Your task to perform on an android device: toggle data saver in the chrome app Image 0: 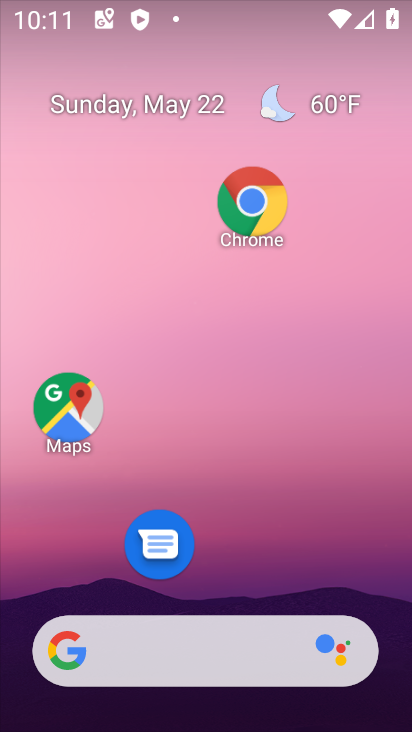
Step 0: click (247, 194)
Your task to perform on an android device: toggle data saver in the chrome app Image 1: 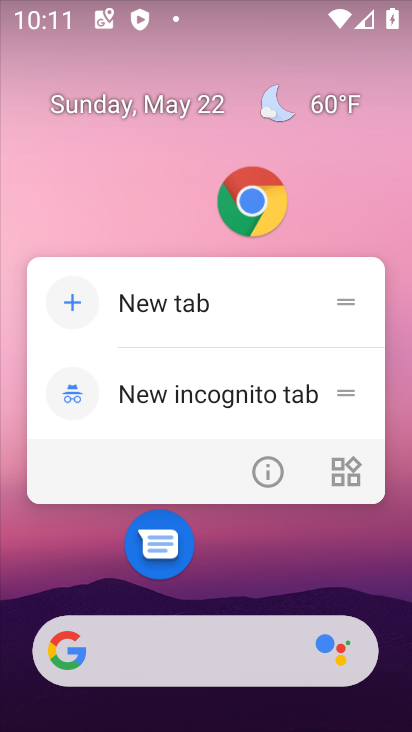
Step 1: click (248, 199)
Your task to perform on an android device: toggle data saver in the chrome app Image 2: 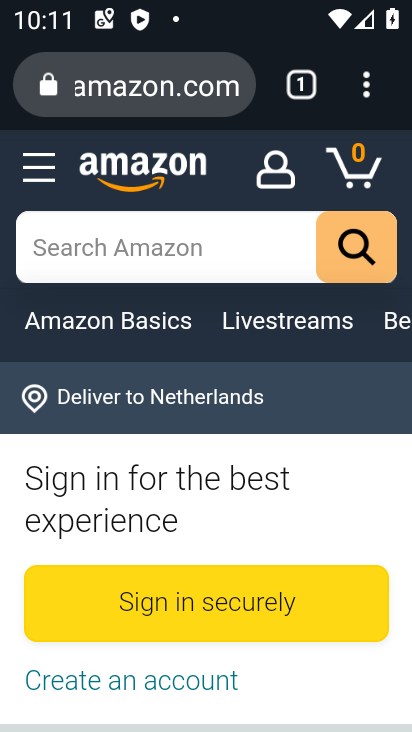
Step 2: click (360, 82)
Your task to perform on an android device: toggle data saver in the chrome app Image 3: 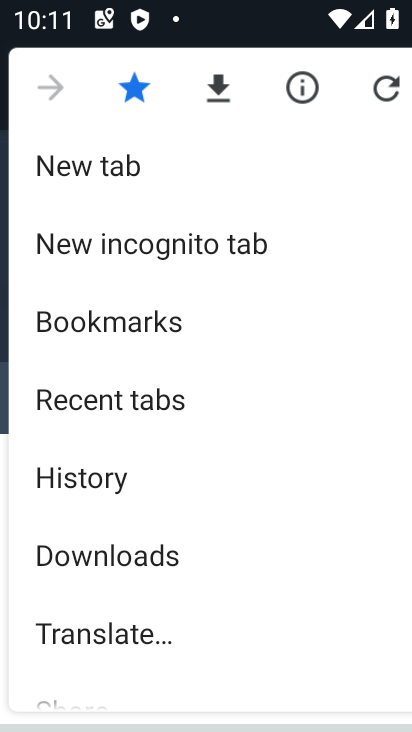
Step 3: drag from (226, 527) to (233, 88)
Your task to perform on an android device: toggle data saver in the chrome app Image 4: 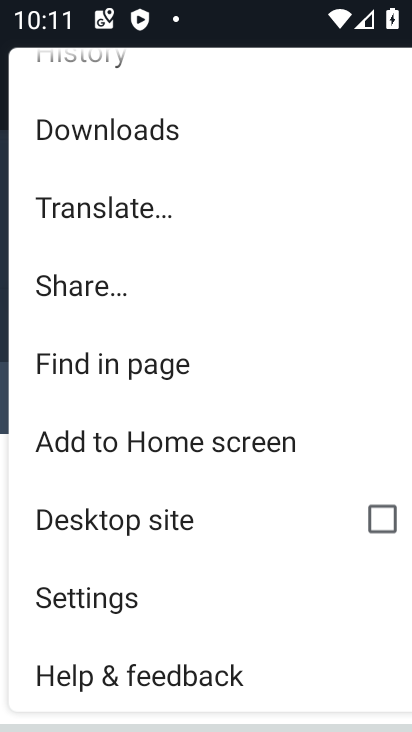
Step 4: click (87, 594)
Your task to perform on an android device: toggle data saver in the chrome app Image 5: 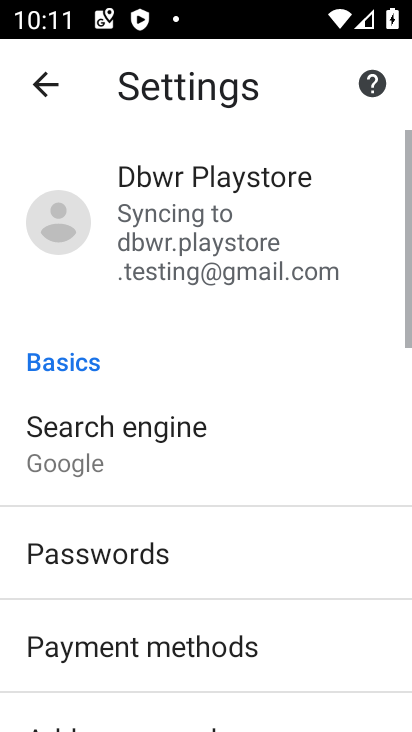
Step 5: drag from (291, 533) to (236, 80)
Your task to perform on an android device: toggle data saver in the chrome app Image 6: 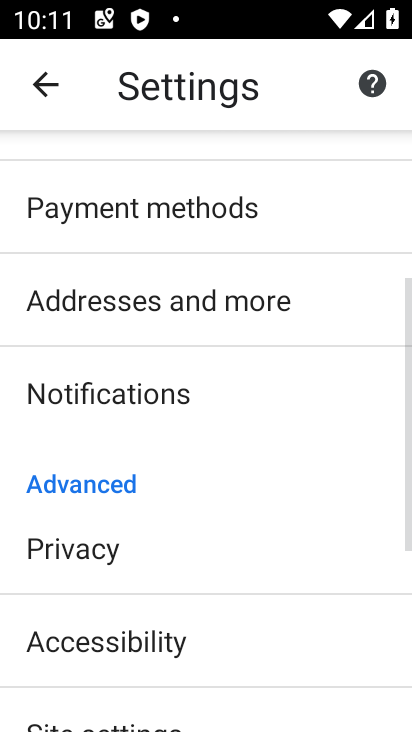
Step 6: drag from (174, 669) to (132, 223)
Your task to perform on an android device: toggle data saver in the chrome app Image 7: 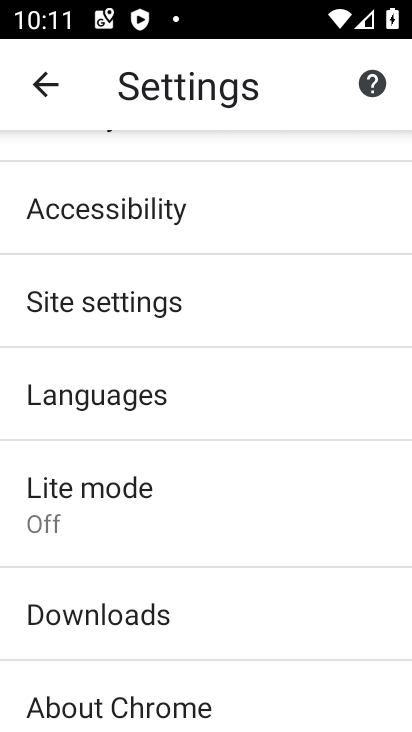
Step 7: click (117, 485)
Your task to perform on an android device: toggle data saver in the chrome app Image 8: 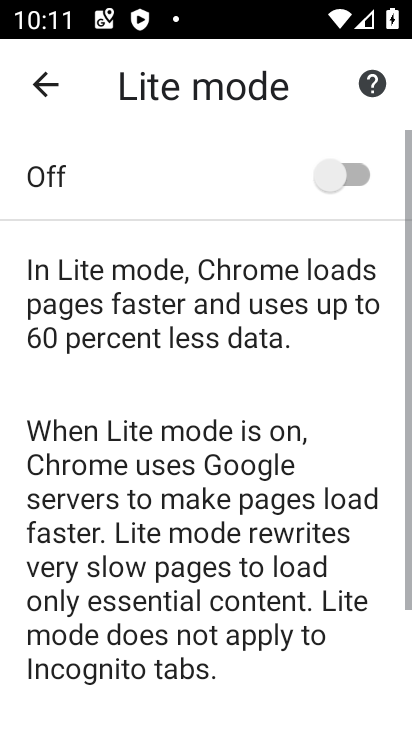
Step 8: click (352, 160)
Your task to perform on an android device: toggle data saver in the chrome app Image 9: 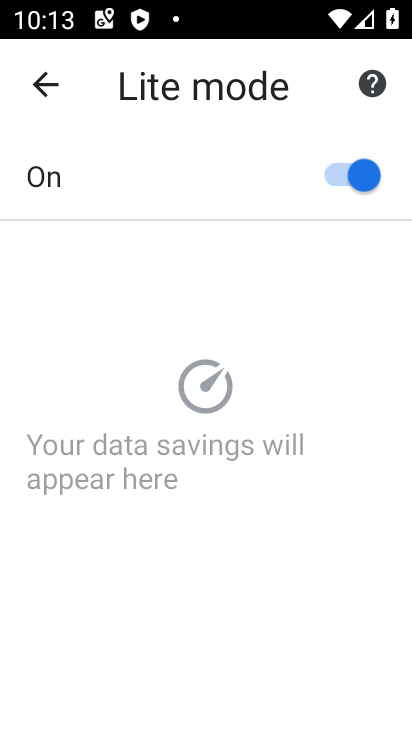
Step 9: task complete